Your task to perform on an android device: Open calendar and show me the second week of next month Image 0: 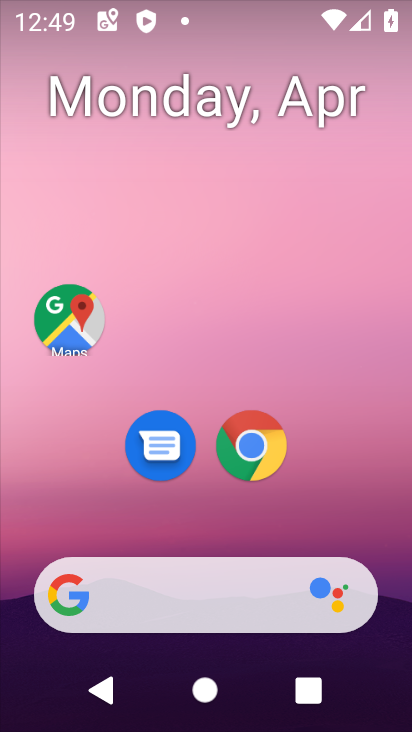
Step 0: drag from (371, 456) to (364, 81)
Your task to perform on an android device: Open calendar and show me the second week of next month Image 1: 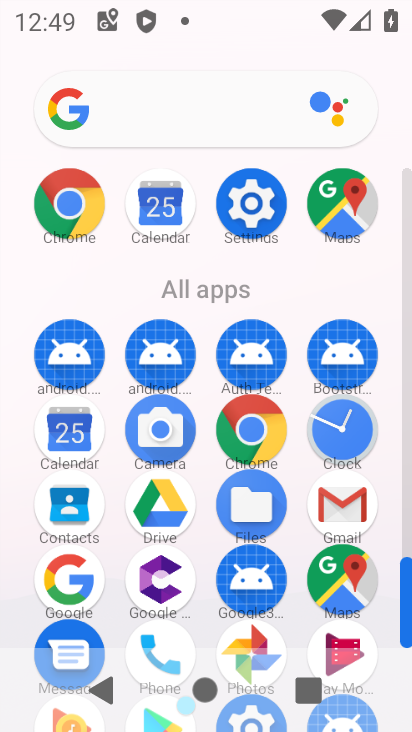
Step 1: click (84, 441)
Your task to perform on an android device: Open calendar and show me the second week of next month Image 2: 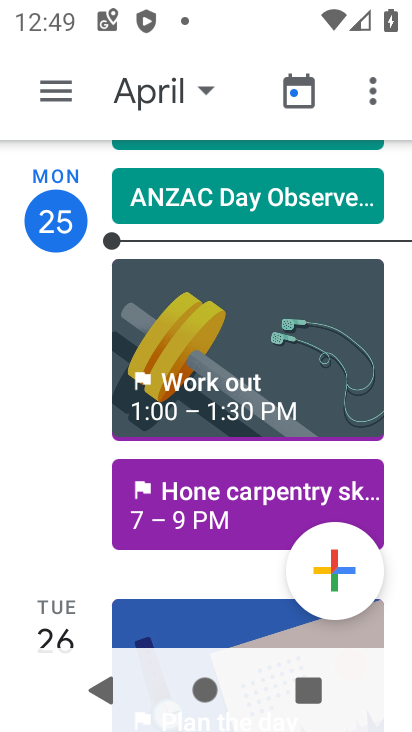
Step 2: click (203, 85)
Your task to perform on an android device: Open calendar and show me the second week of next month Image 3: 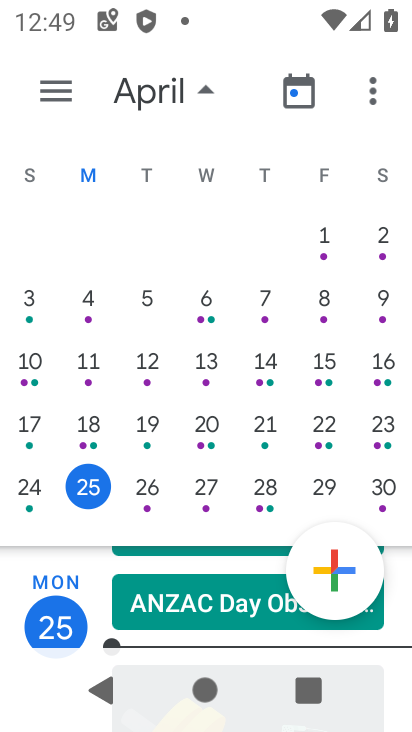
Step 3: drag from (398, 200) to (45, 202)
Your task to perform on an android device: Open calendar and show me the second week of next month Image 4: 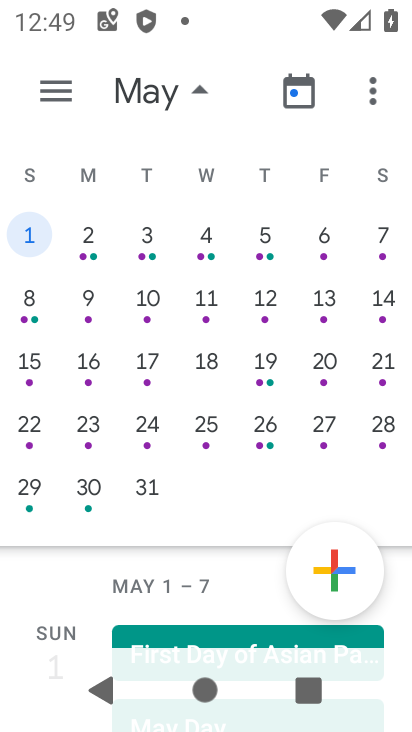
Step 4: click (87, 229)
Your task to perform on an android device: Open calendar and show me the second week of next month Image 5: 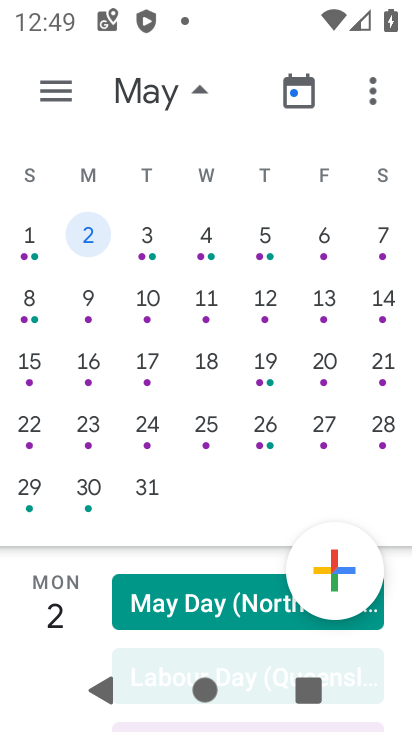
Step 5: task complete